Your task to perform on an android device: Search for pizza restaurants on Maps Image 0: 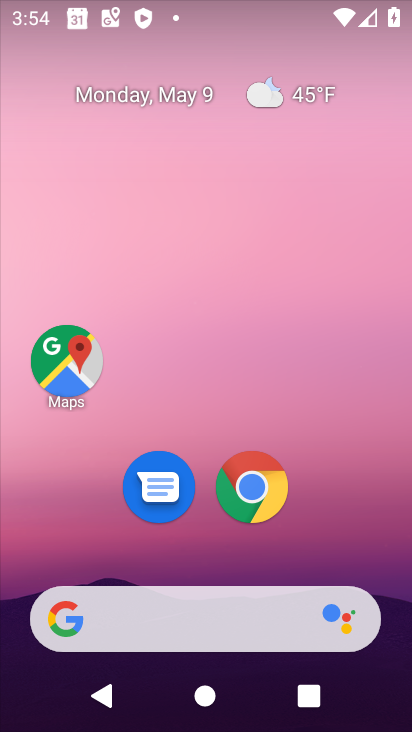
Step 0: click (72, 359)
Your task to perform on an android device: Search for pizza restaurants on Maps Image 1: 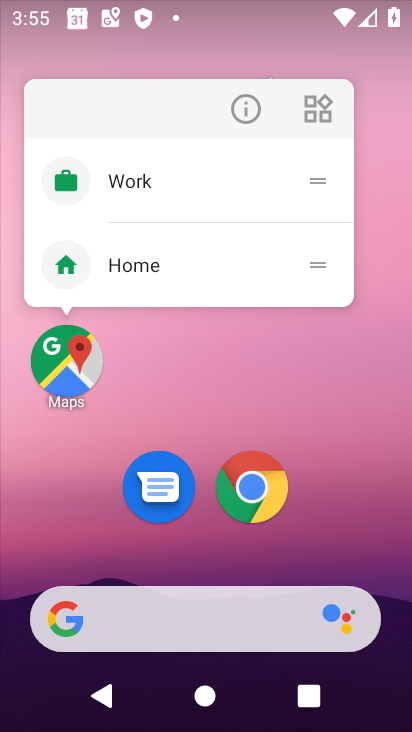
Step 1: click (103, 468)
Your task to perform on an android device: Search for pizza restaurants on Maps Image 2: 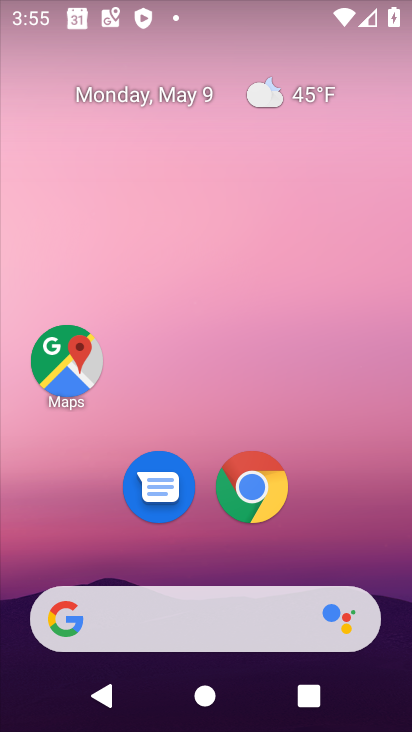
Step 2: click (62, 378)
Your task to perform on an android device: Search for pizza restaurants on Maps Image 3: 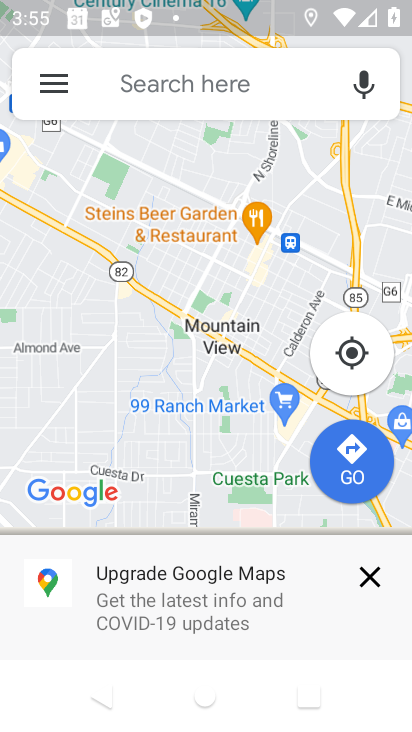
Step 3: click (140, 83)
Your task to perform on an android device: Search for pizza restaurants on Maps Image 4: 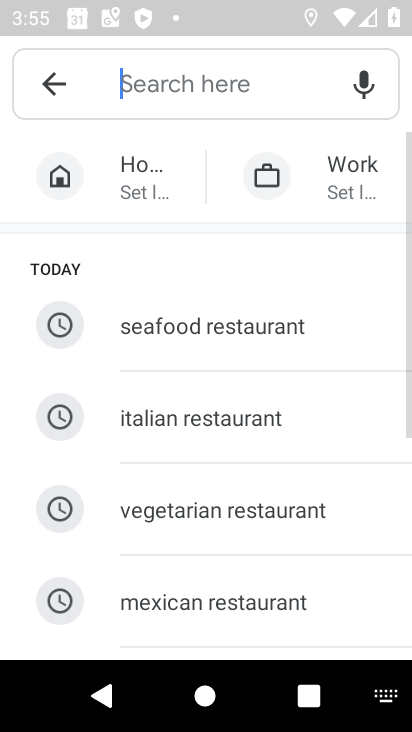
Step 4: drag from (190, 611) to (141, 374)
Your task to perform on an android device: Search for pizza restaurants on Maps Image 5: 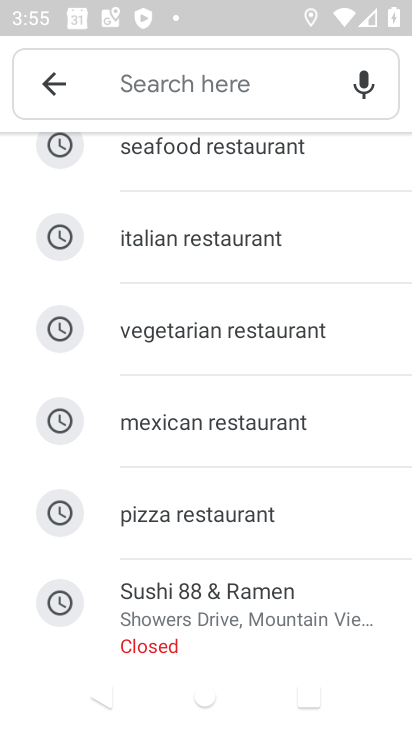
Step 5: click (166, 511)
Your task to perform on an android device: Search for pizza restaurants on Maps Image 6: 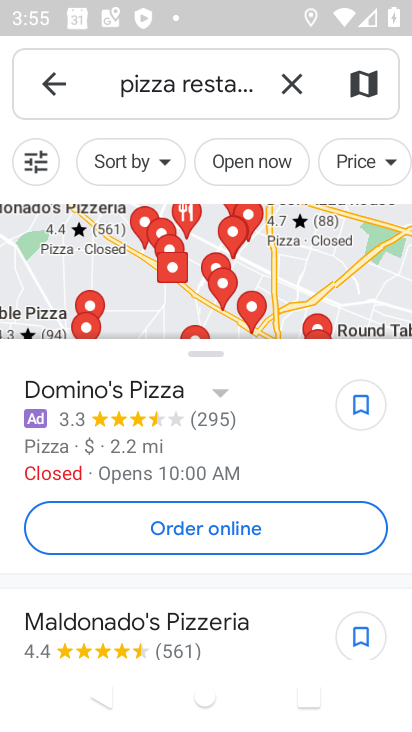
Step 6: task complete